Your task to perform on an android device: turn on notifications settings in the gmail app Image 0: 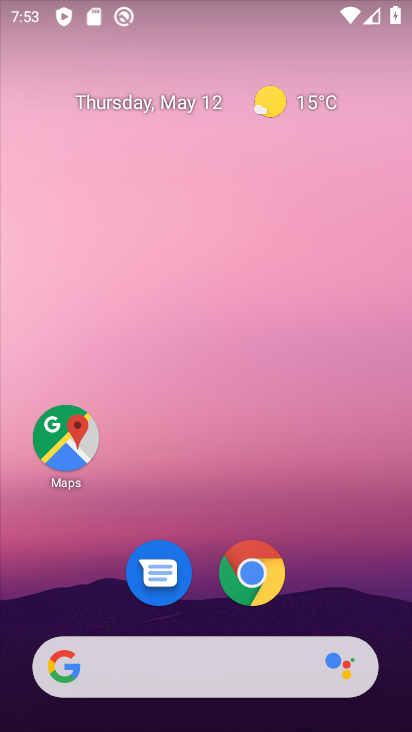
Step 0: drag from (340, 568) to (210, 56)
Your task to perform on an android device: turn on notifications settings in the gmail app Image 1: 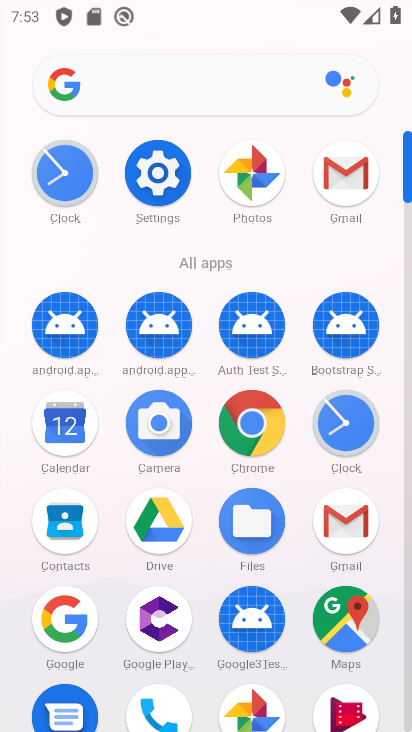
Step 1: click (352, 179)
Your task to perform on an android device: turn on notifications settings in the gmail app Image 2: 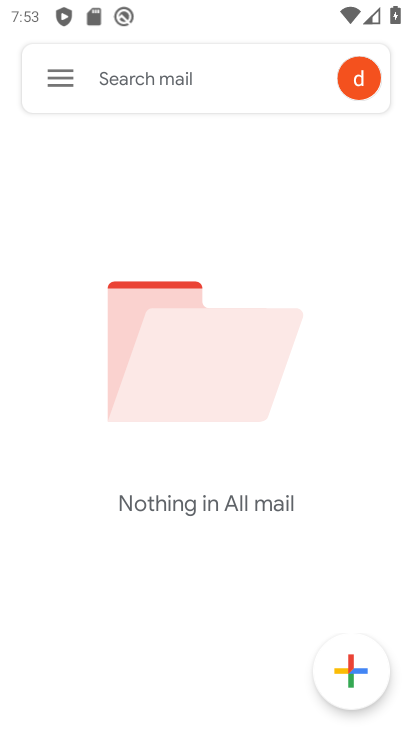
Step 2: click (49, 71)
Your task to perform on an android device: turn on notifications settings in the gmail app Image 3: 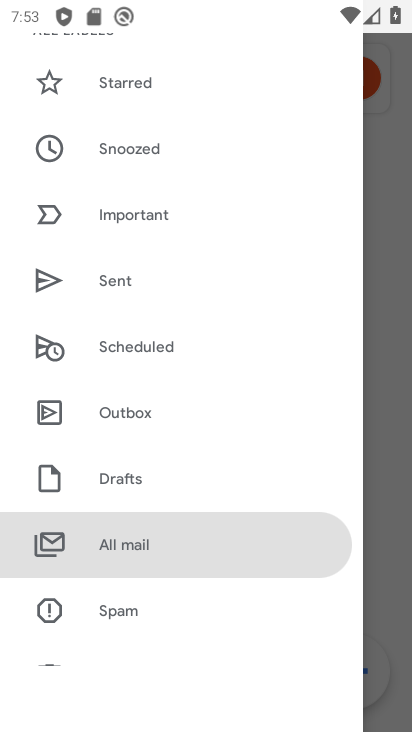
Step 3: drag from (226, 581) to (162, 175)
Your task to perform on an android device: turn on notifications settings in the gmail app Image 4: 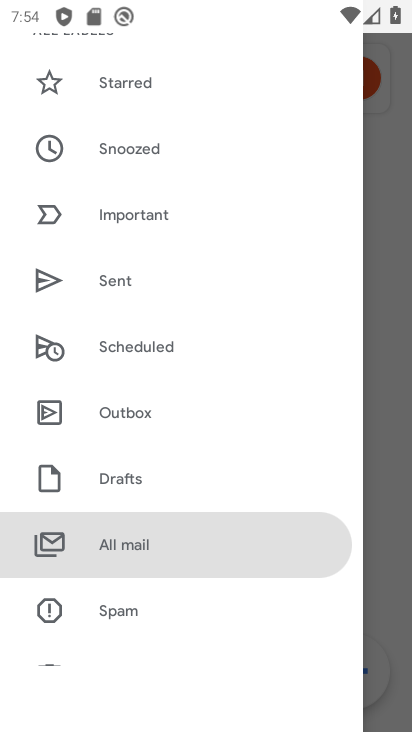
Step 4: drag from (180, 449) to (121, 168)
Your task to perform on an android device: turn on notifications settings in the gmail app Image 5: 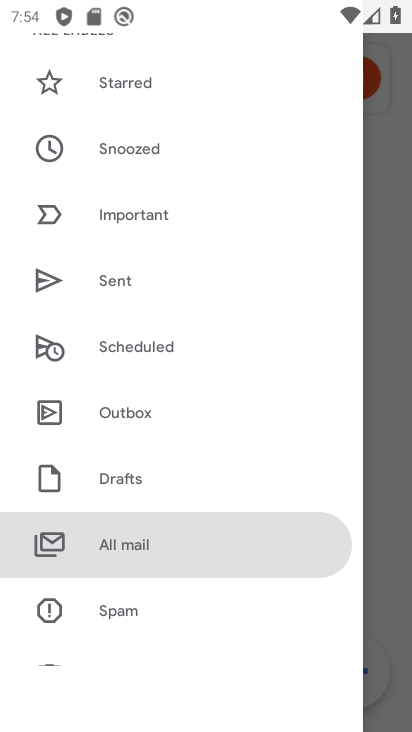
Step 5: drag from (225, 461) to (203, 153)
Your task to perform on an android device: turn on notifications settings in the gmail app Image 6: 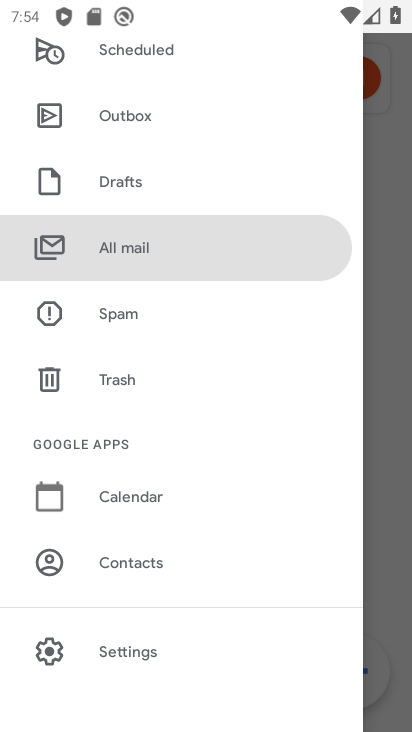
Step 6: click (120, 648)
Your task to perform on an android device: turn on notifications settings in the gmail app Image 7: 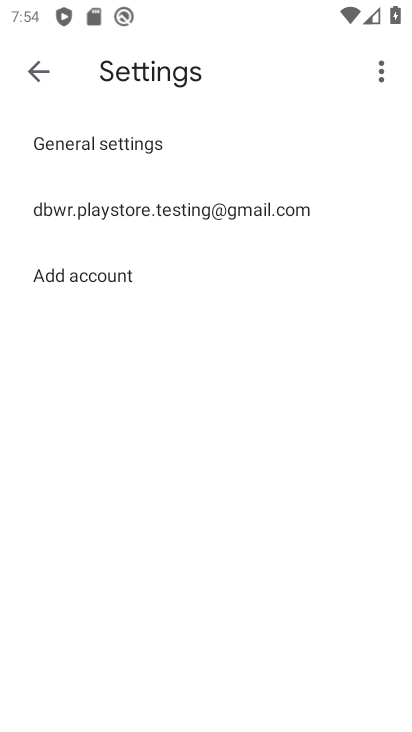
Step 7: click (117, 138)
Your task to perform on an android device: turn on notifications settings in the gmail app Image 8: 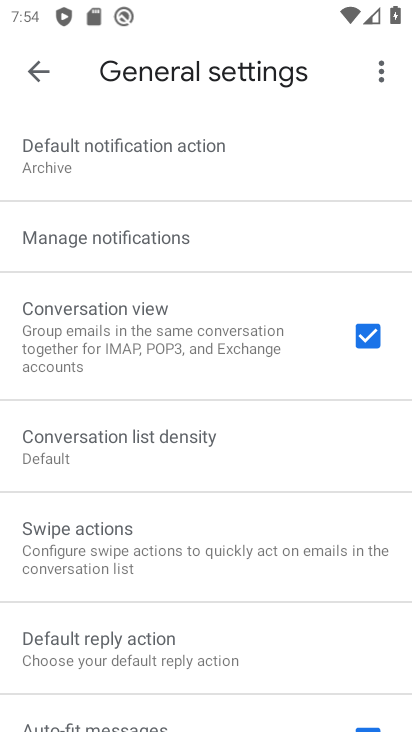
Step 8: click (127, 233)
Your task to perform on an android device: turn on notifications settings in the gmail app Image 9: 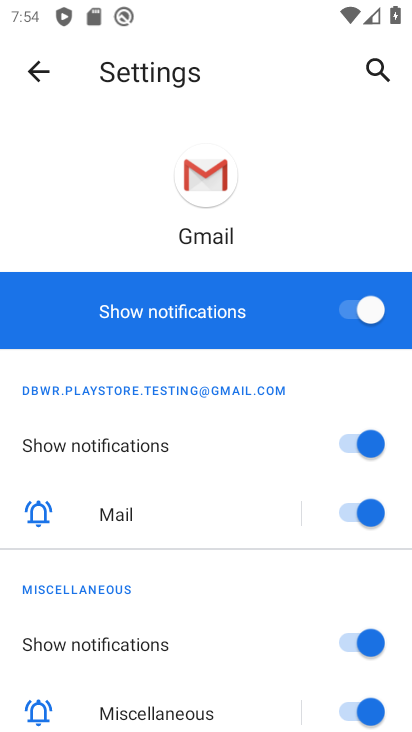
Step 9: task complete